Your task to perform on an android device: Search for vegetarian restaurants on Maps Image 0: 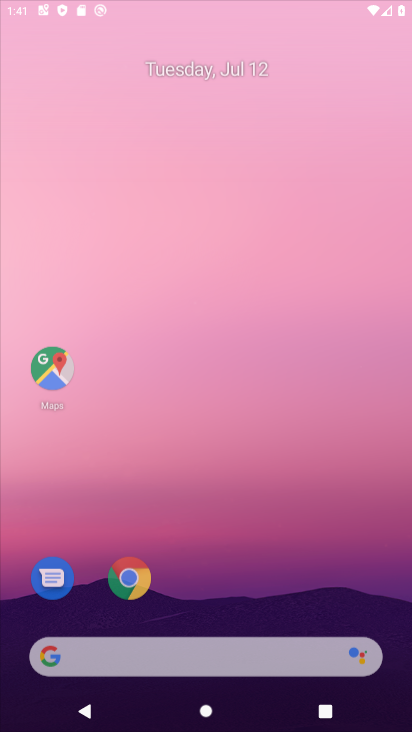
Step 0: drag from (237, 643) to (315, 80)
Your task to perform on an android device: Search for vegetarian restaurants on Maps Image 1: 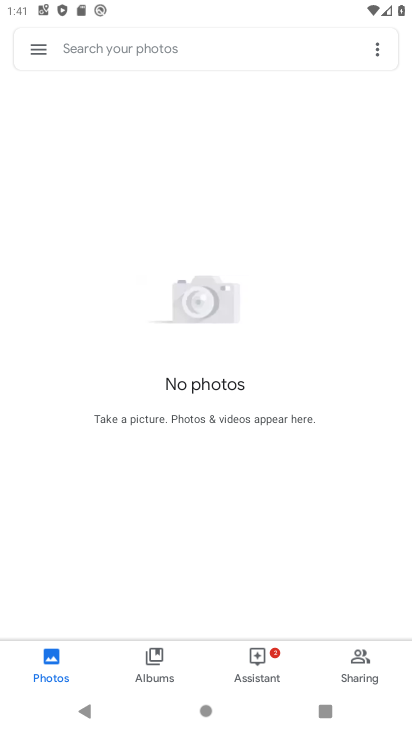
Step 1: press home button
Your task to perform on an android device: Search for vegetarian restaurants on Maps Image 2: 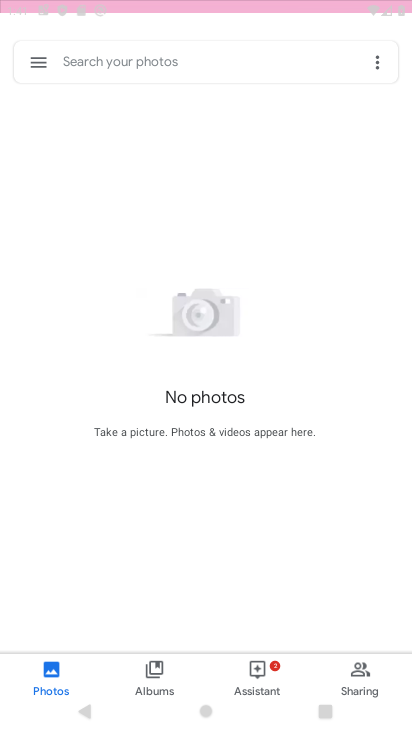
Step 2: drag from (233, 590) to (312, 20)
Your task to perform on an android device: Search for vegetarian restaurants on Maps Image 3: 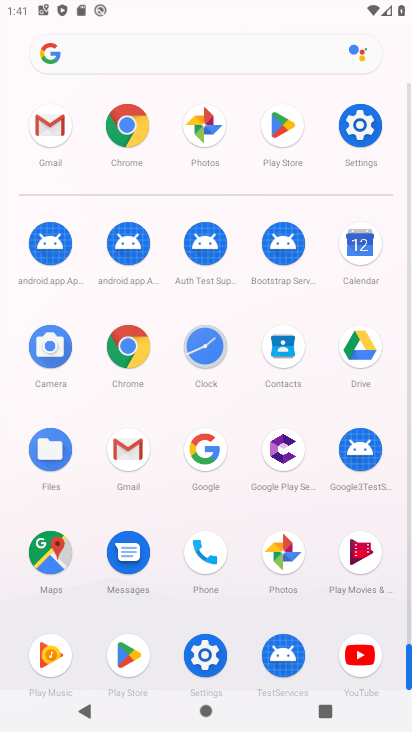
Step 3: click (48, 553)
Your task to perform on an android device: Search for vegetarian restaurants on Maps Image 4: 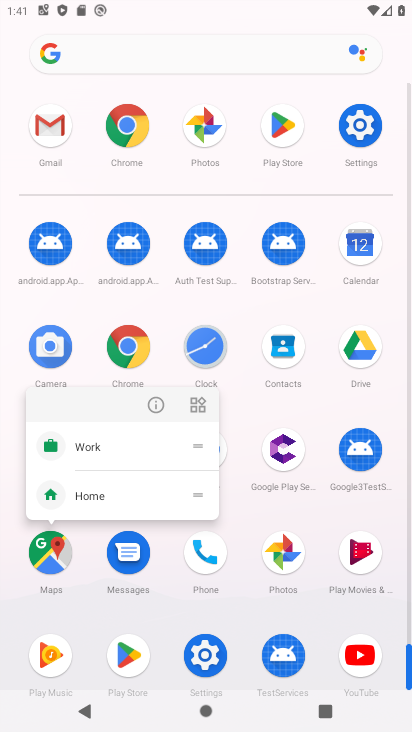
Step 4: click (159, 405)
Your task to perform on an android device: Search for vegetarian restaurants on Maps Image 5: 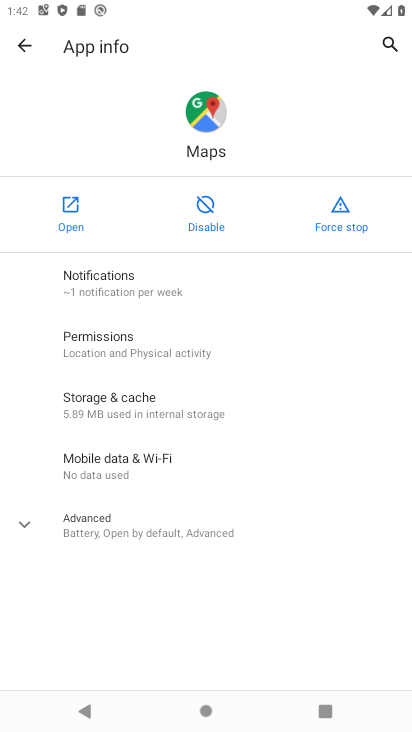
Step 5: click (63, 212)
Your task to perform on an android device: Search for vegetarian restaurants on Maps Image 6: 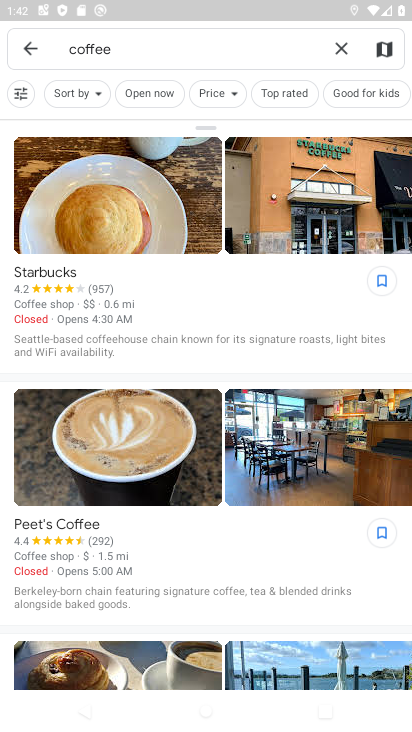
Step 6: drag from (219, 519) to (218, 263)
Your task to perform on an android device: Search for vegetarian restaurants on Maps Image 7: 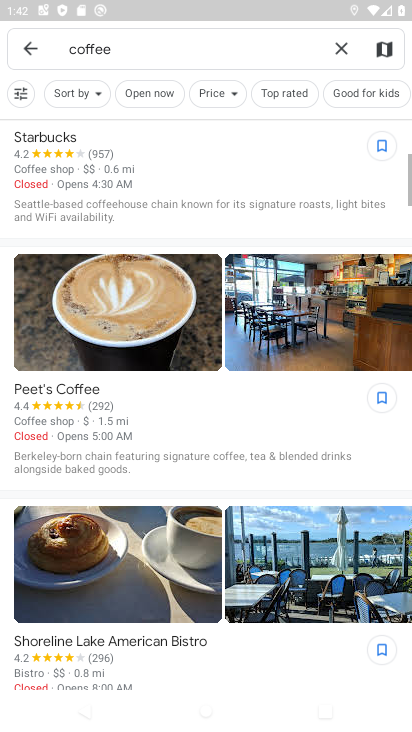
Step 7: drag from (204, 285) to (237, 729)
Your task to perform on an android device: Search for vegetarian restaurants on Maps Image 8: 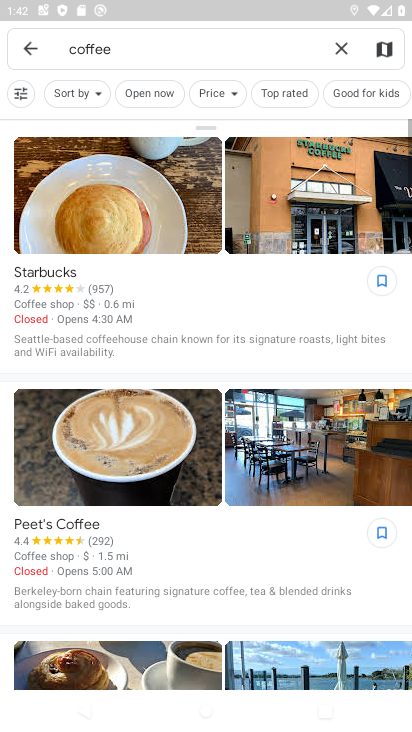
Step 8: click (346, 46)
Your task to perform on an android device: Search for vegetarian restaurants on Maps Image 9: 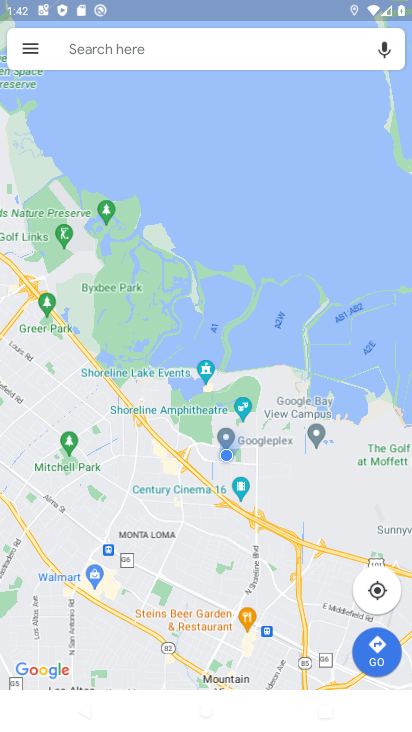
Step 9: click (110, 40)
Your task to perform on an android device: Search for vegetarian restaurants on Maps Image 10: 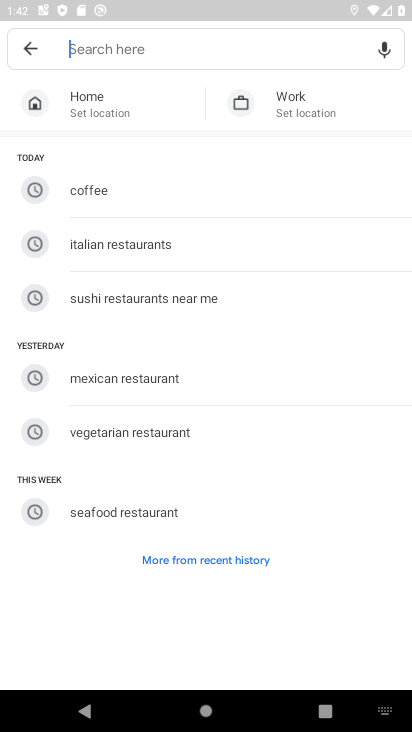
Step 10: type "vegetarian restaurants"
Your task to perform on an android device: Search for vegetarian restaurants on Maps Image 11: 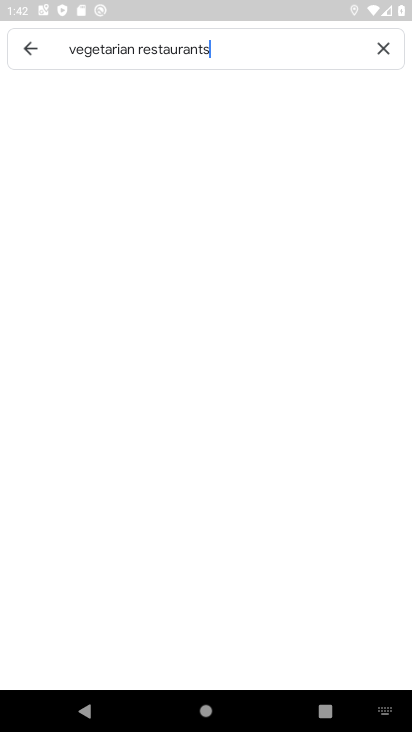
Step 11: type ""
Your task to perform on an android device: Search for vegetarian restaurants on Maps Image 12: 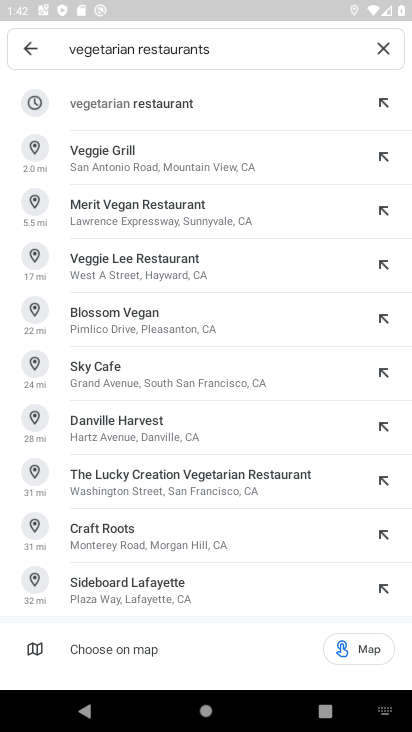
Step 12: click (202, 113)
Your task to perform on an android device: Search for vegetarian restaurants on Maps Image 13: 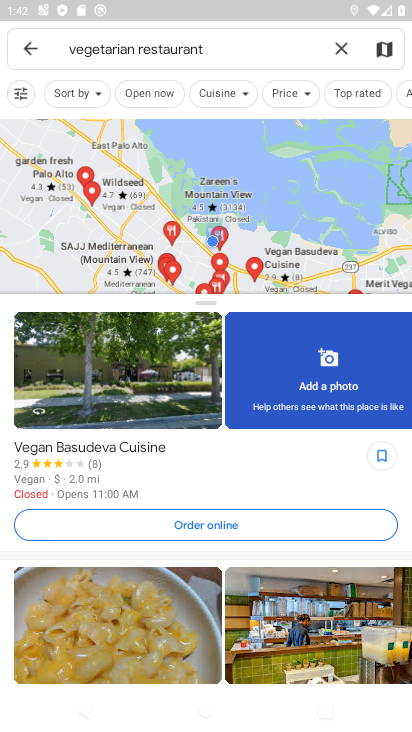
Step 13: task complete